Your task to perform on an android device: Clear the shopping cart on ebay.com. Search for acer predator on ebay.com, select the first entry, add it to the cart, then select checkout. Image 0: 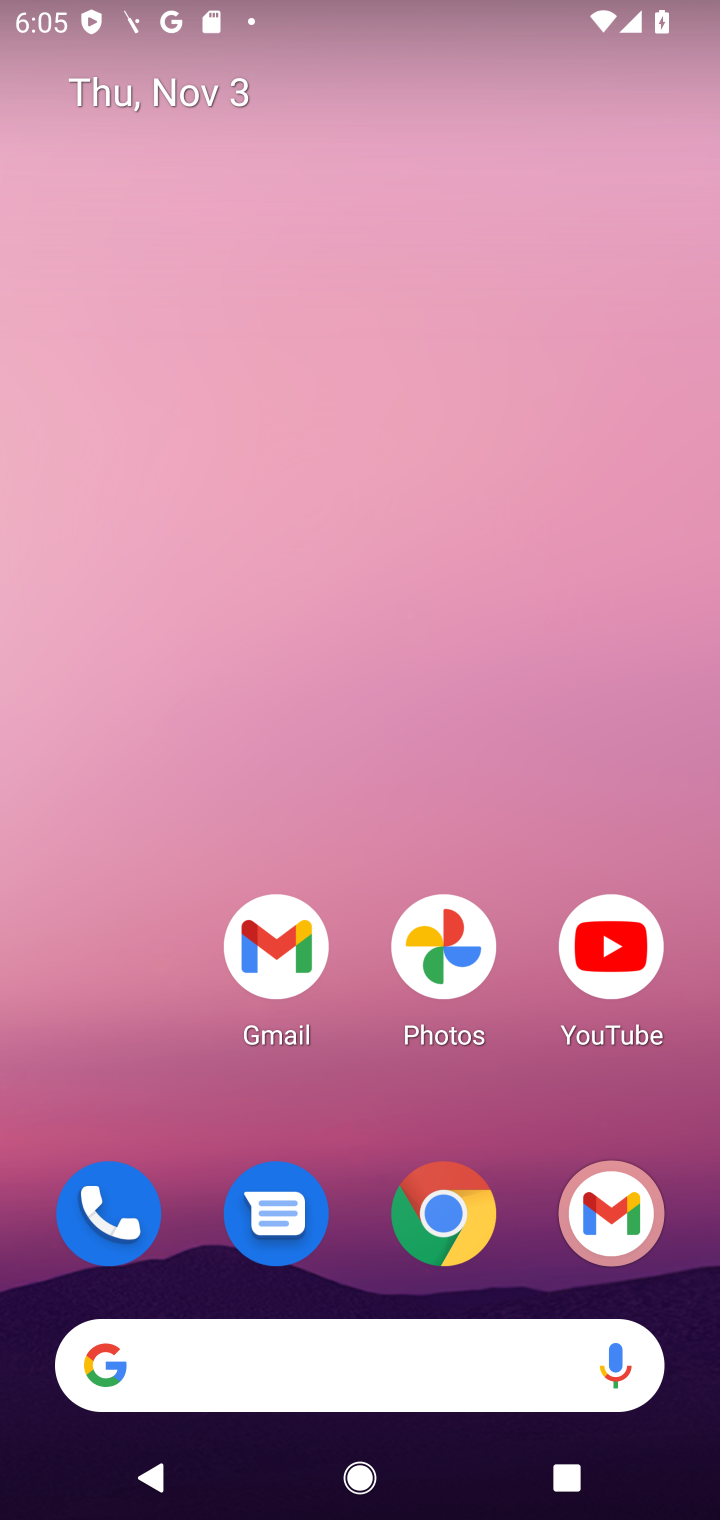
Step 0: click (444, 1226)
Your task to perform on an android device: Clear the shopping cart on ebay.com. Search for acer predator on ebay.com, select the first entry, add it to the cart, then select checkout. Image 1: 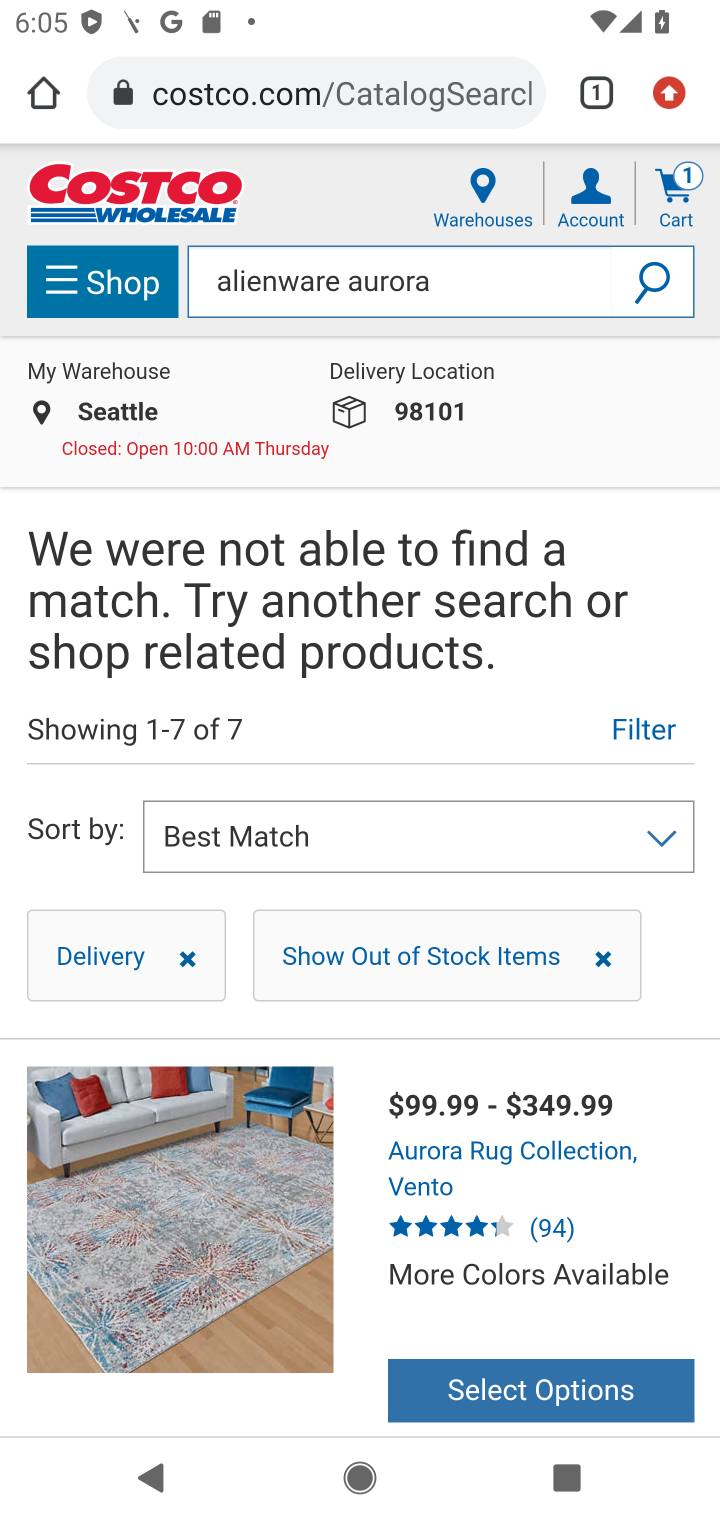
Step 1: click (278, 110)
Your task to perform on an android device: Clear the shopping cart on ebay.com. Search for acer predator on ebay.com, select the first entry, add it to the cart, then select checkout. Image 2: 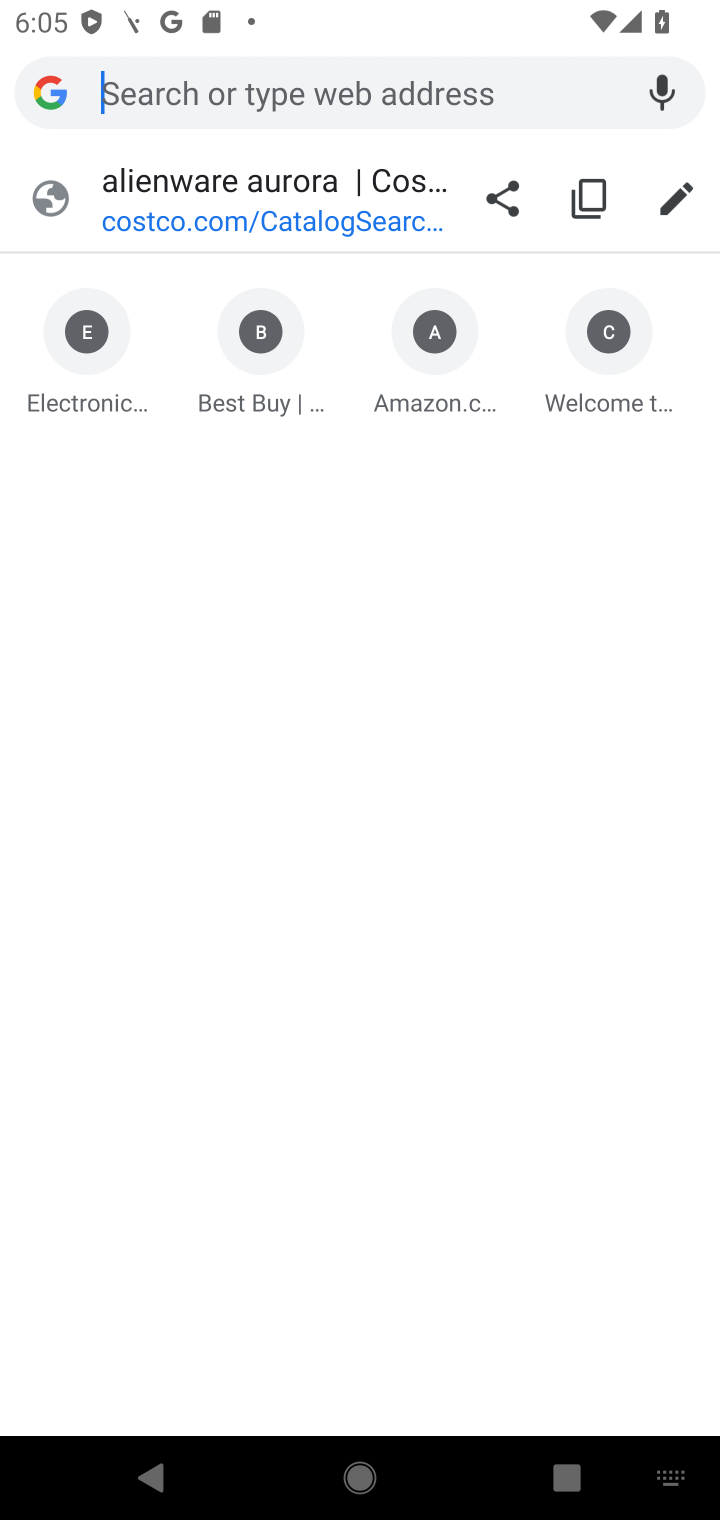
Step 2: type "ebay.com"
Your task to perform on an android device: Clear the shopping cart on ebay.com. Search for acer predator on ebay.com, select the first entry, add it to the cart, then select checkout. Image 3: 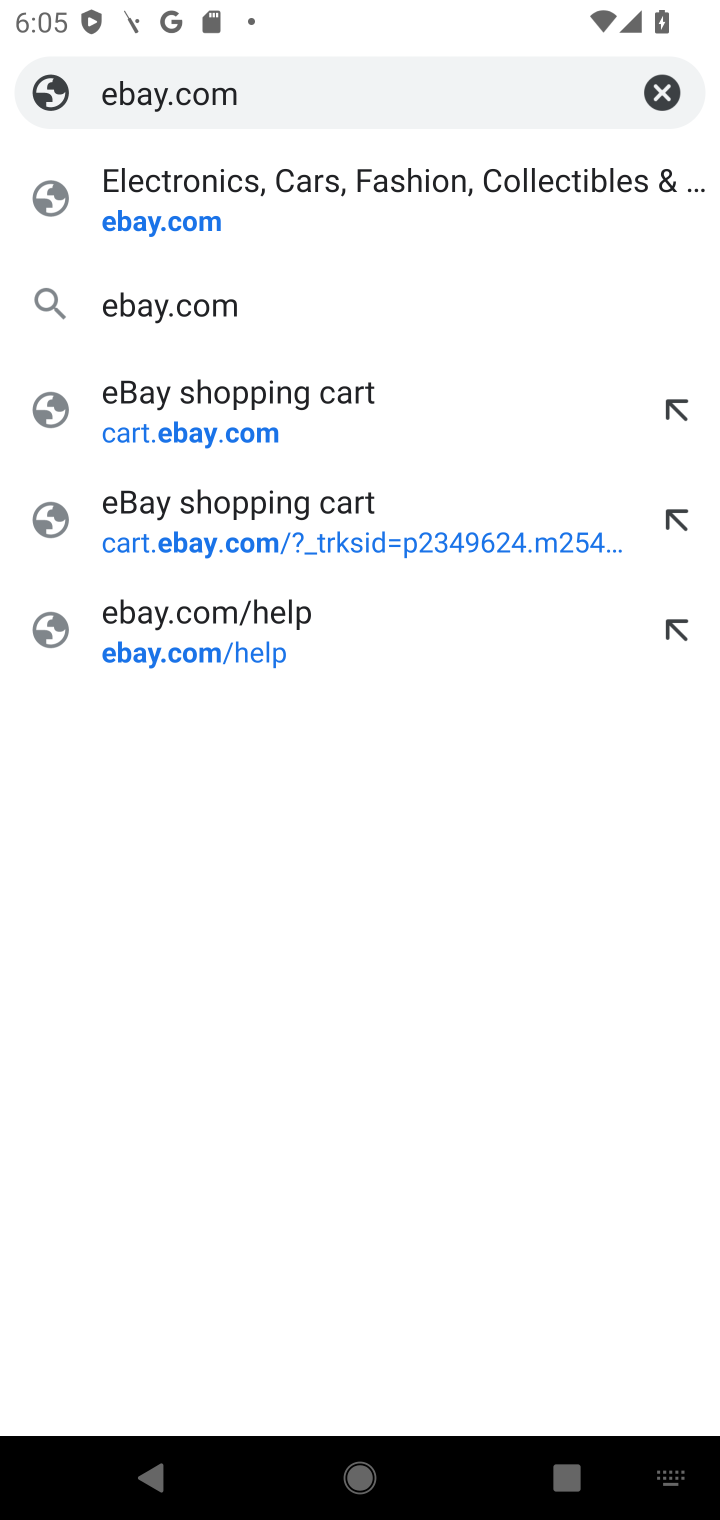
Step 3: click (129, 217)
Your task to perform on an android device: Clear the shopping cart on ebay.com. Search for acer predator on ebay.com, select the first entry, add it to the cart, then select checkout. Image 4: 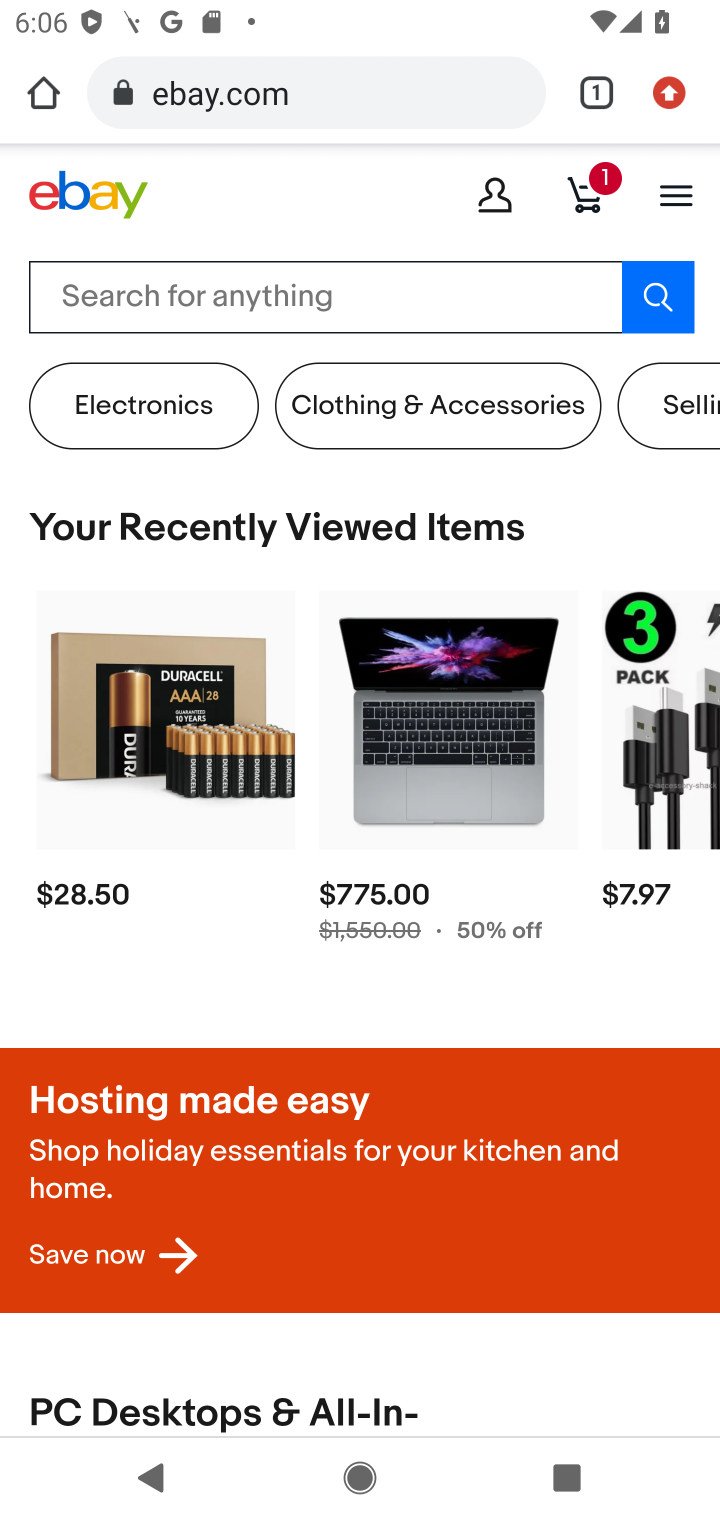
Step 4: click (598, 181)
Your task to perform on an android device: Clear the shopping cart on ebay.com. Search for acer predator on ebay.com, select the first entry, add it to the cart, then select checkout. Image 5: 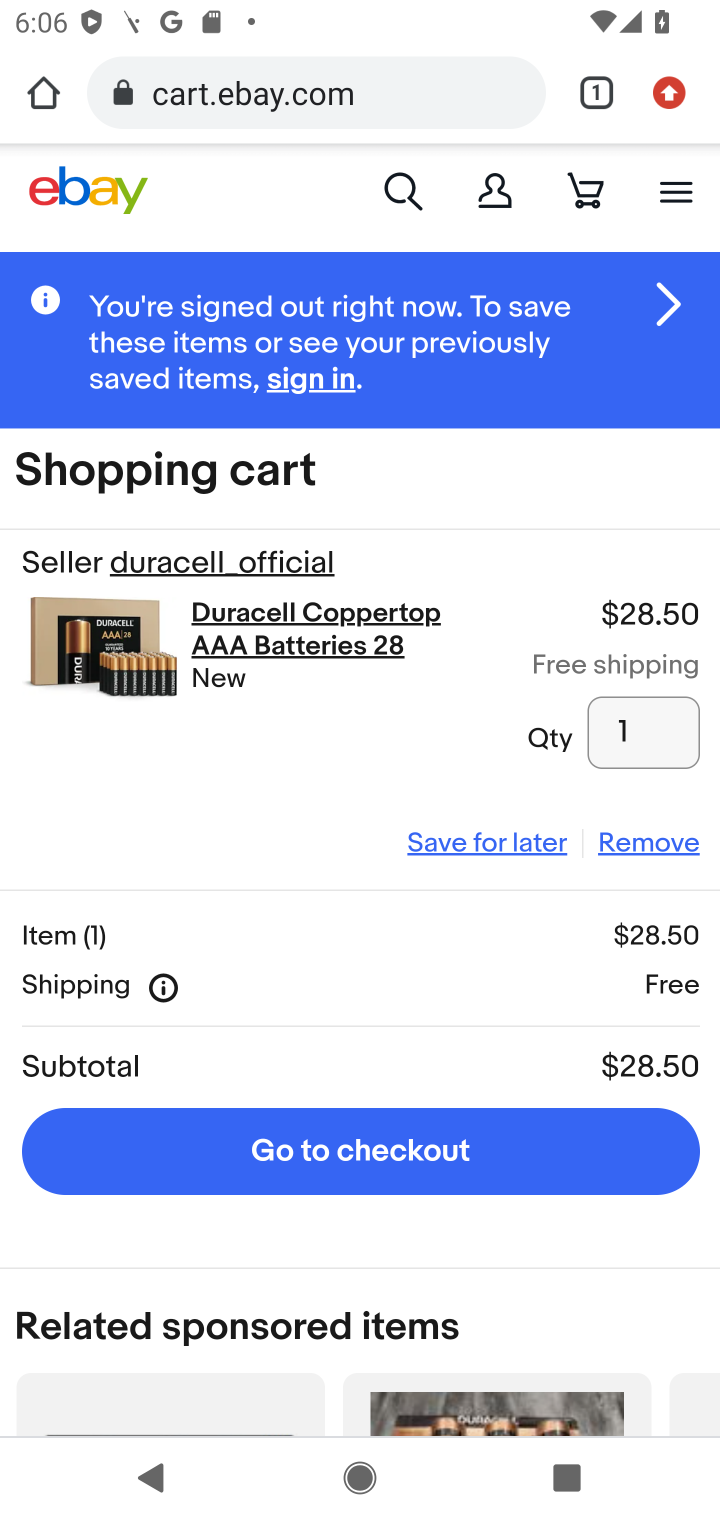
Step 5: click (658, 850)
Your task to perform on an android device: Clear the shopping cart on ebay.com. Search for acer predator on ebay.com, select the first entry, add it to the cart, then select checkout. Image 6: 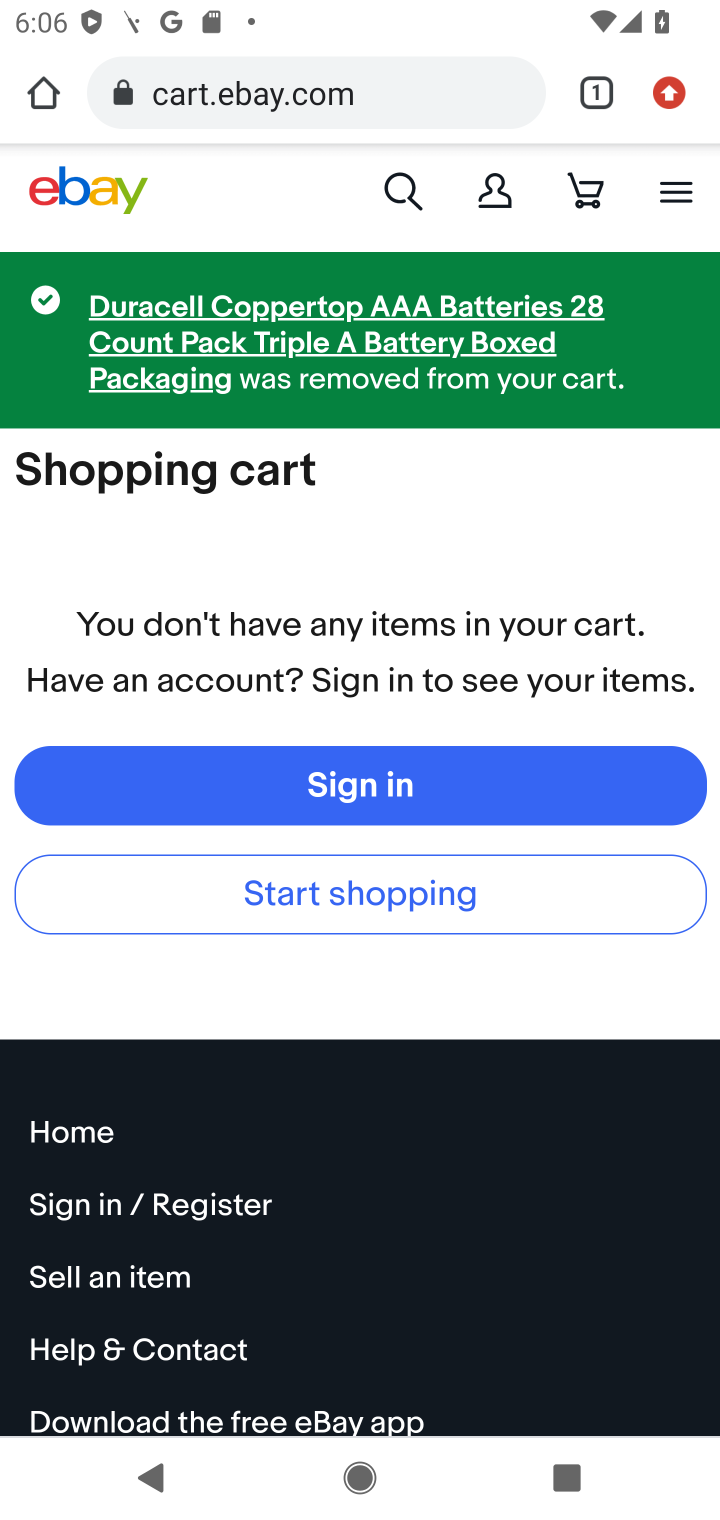
Step 6: click (399, 186)
Your task to perform on an android device: Clear the shopping cart on ebay.com. Search for acer predator on ebay.com, select the first entry, add it to the cart, then select checkout. Image 7: 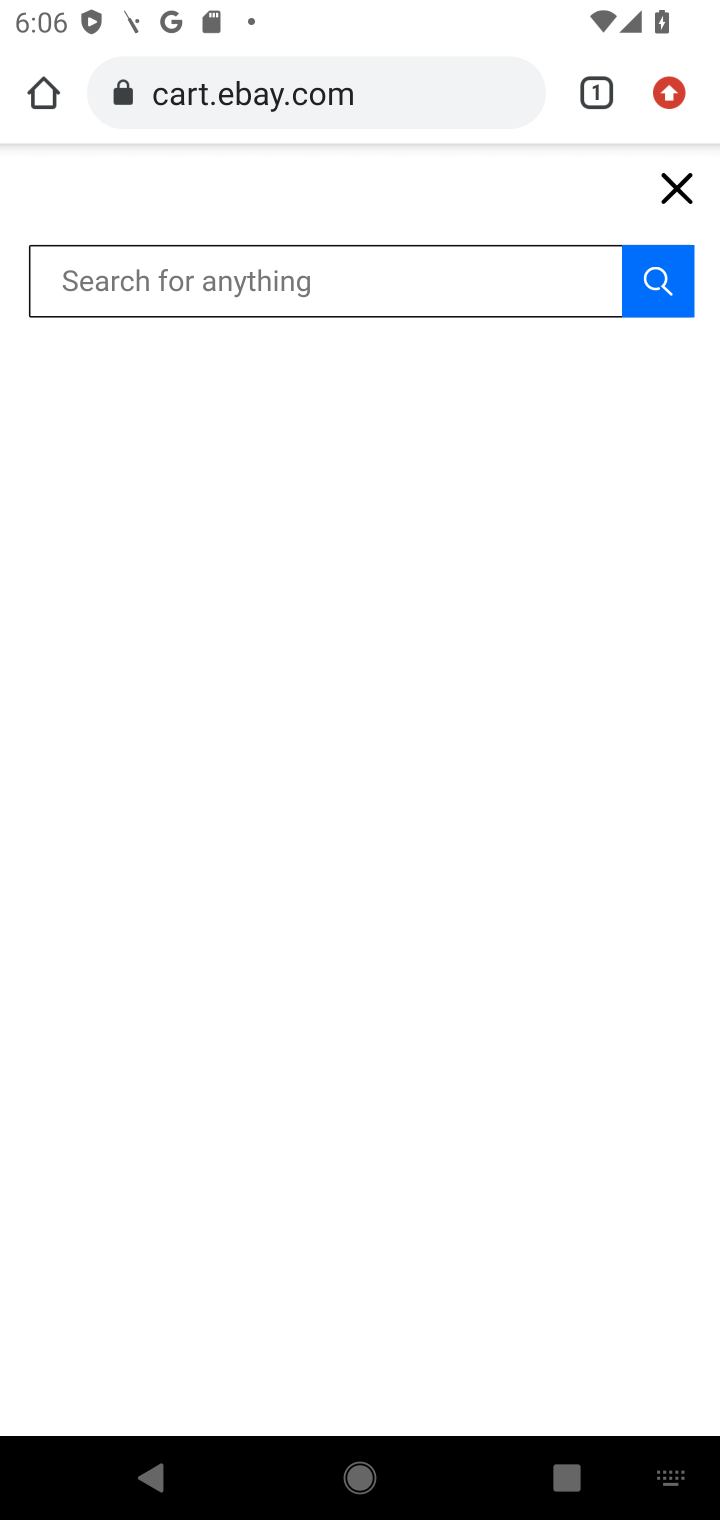
Step 7: type "acer predator"
Your task to perform on an android device: Clear the shopping cart on ebay.com. Search for acer predator on ebay.com, select the first entry, add it to the cart, then select checkout. Image 8: 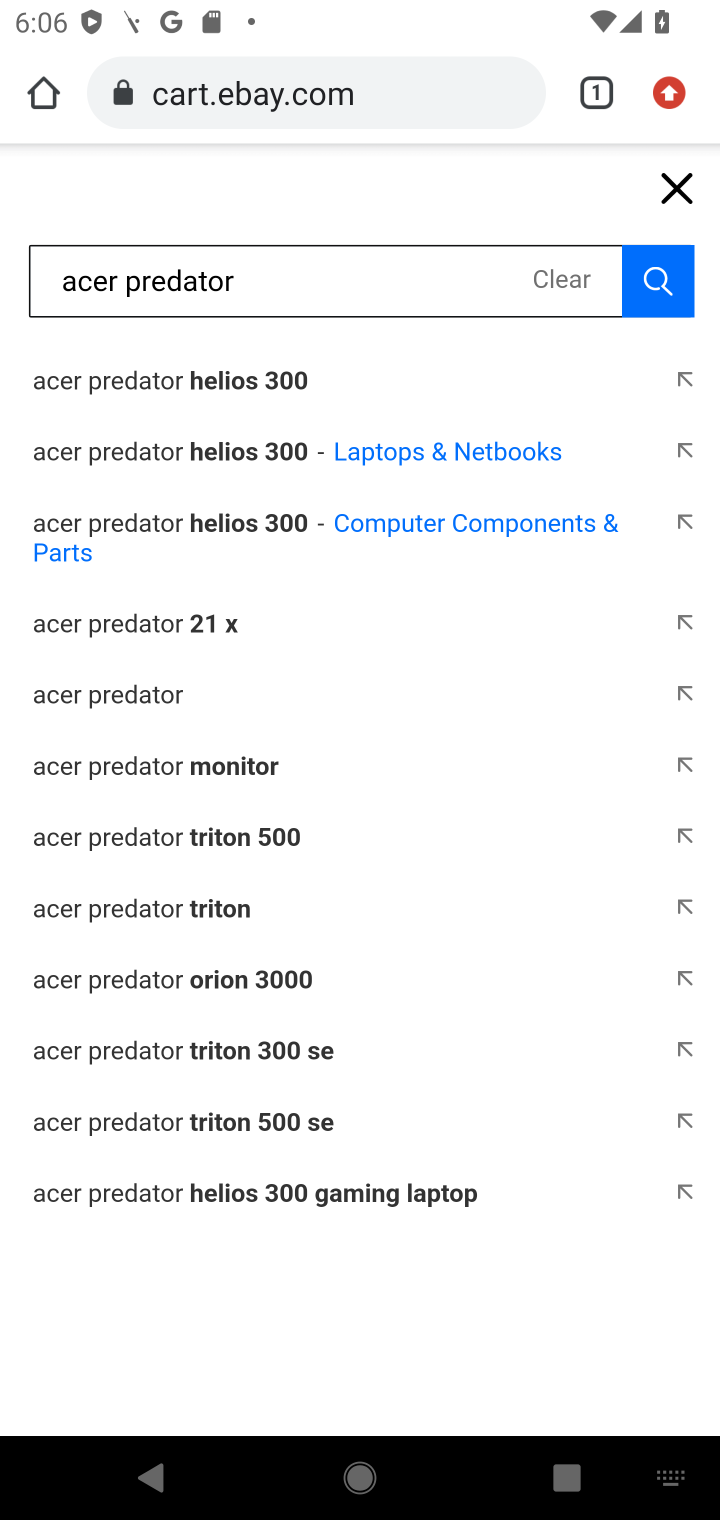
Step 8: click (144, 701)
Your task to perform on an android device: Clear the shopping cart on ebay.com. Search for acer predator on ebay.com, select the first entry, add it to the cart, then select checkout. Image 9: 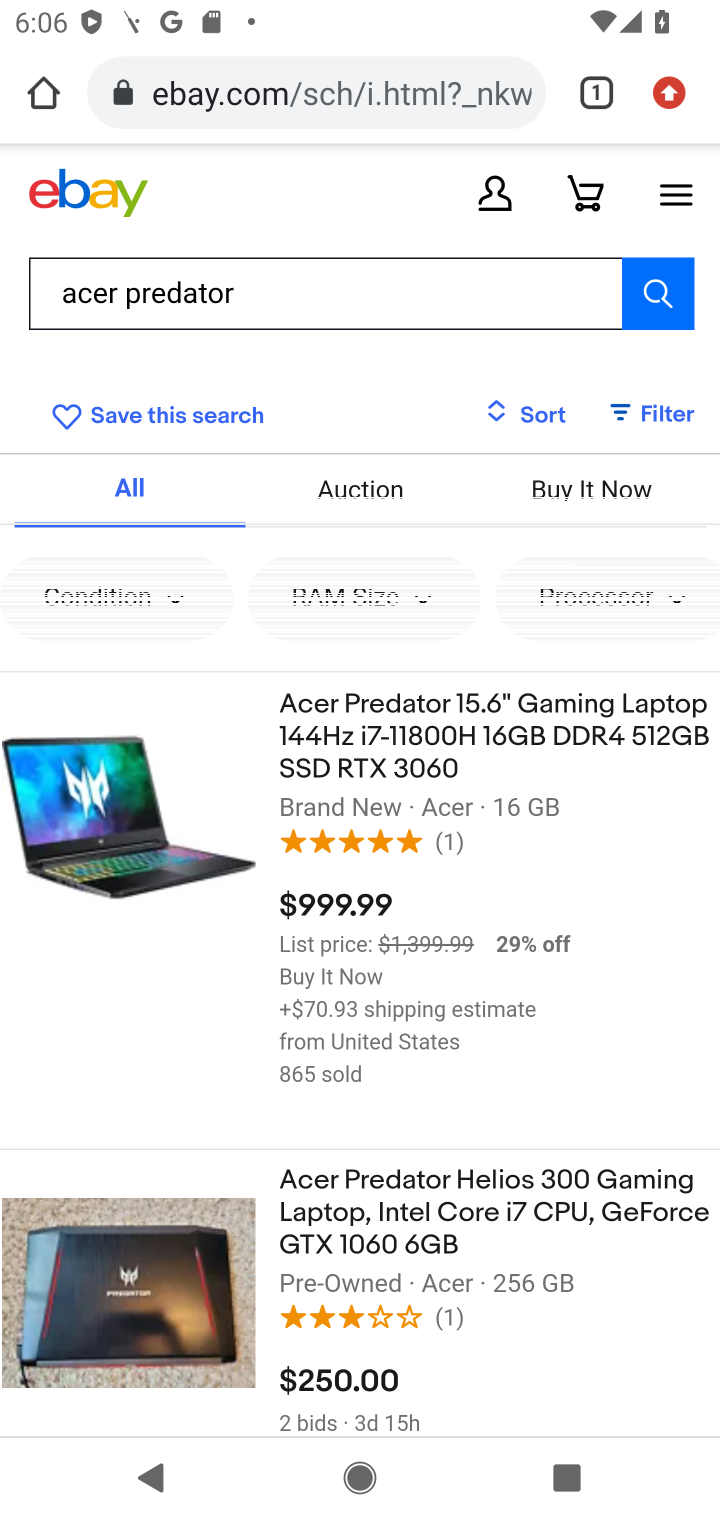
Step 9: click (183, 735)
Your task to perform on an android device: Clear the shopping cart on ebay.com. Search for acer predator on ebay.com, select the first entry, add it to the cart, then select checkout. Image 10: 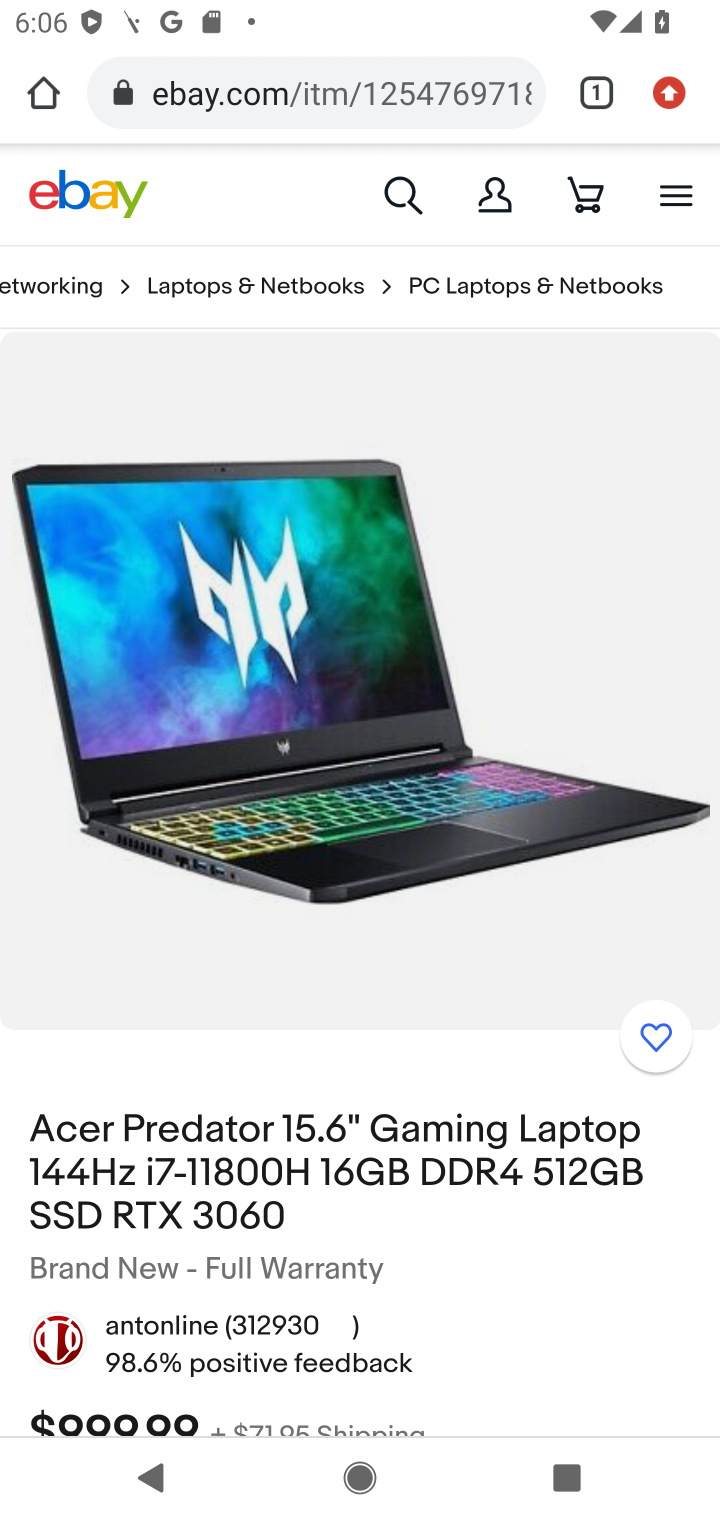
Step 10: drag from (387, 1070) to (377, 324)
Your task to perform on an android device: Clear the shopping cart on ebay.com. Search for acer predator on ebay.com, select the first entry, add it to the cart, then select checkout. Image 11: 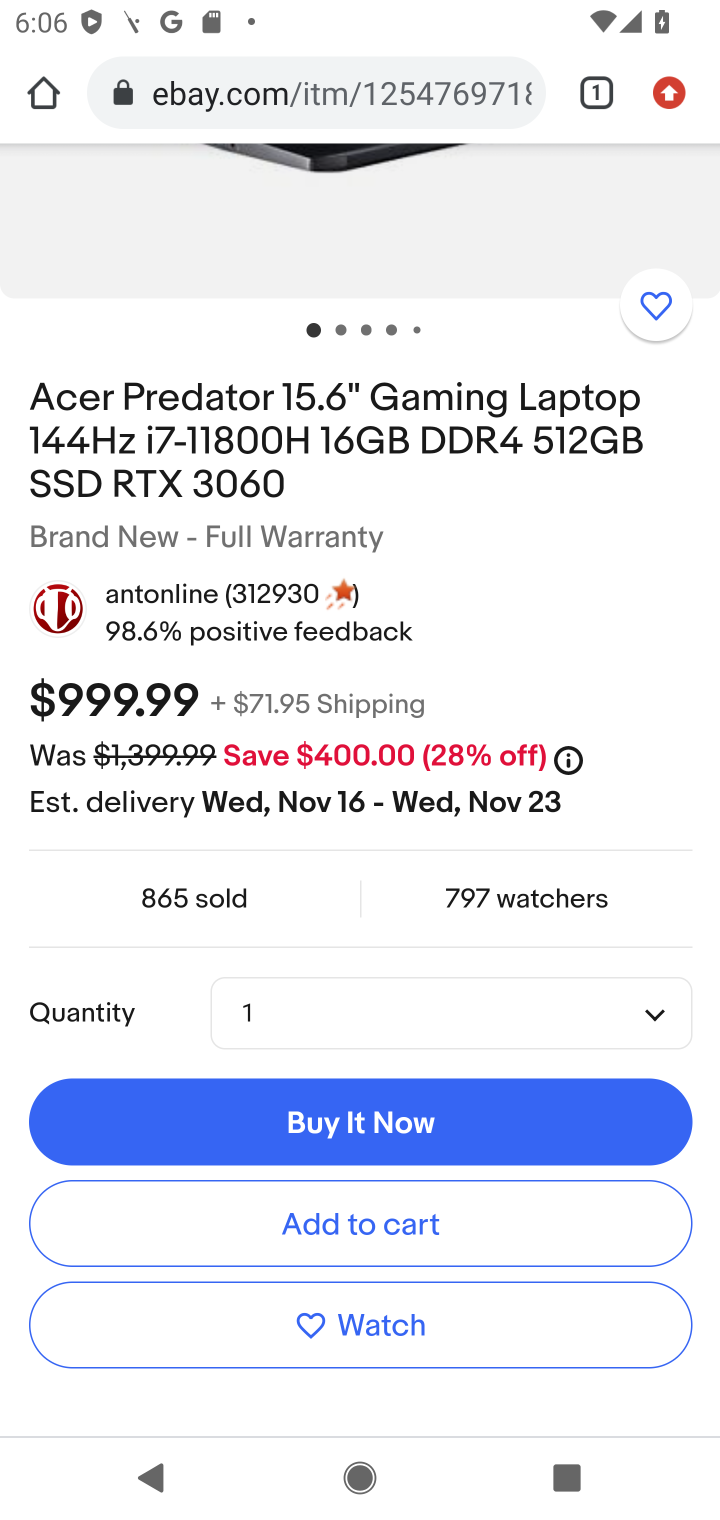
Step 11: click (347, 1221)
Your task to perform on an android device: Clear the shopping cart on ebay.com. Search for acer predator on ebay.com, select the first entry, add it to the cart, then select checkout. Image 12: 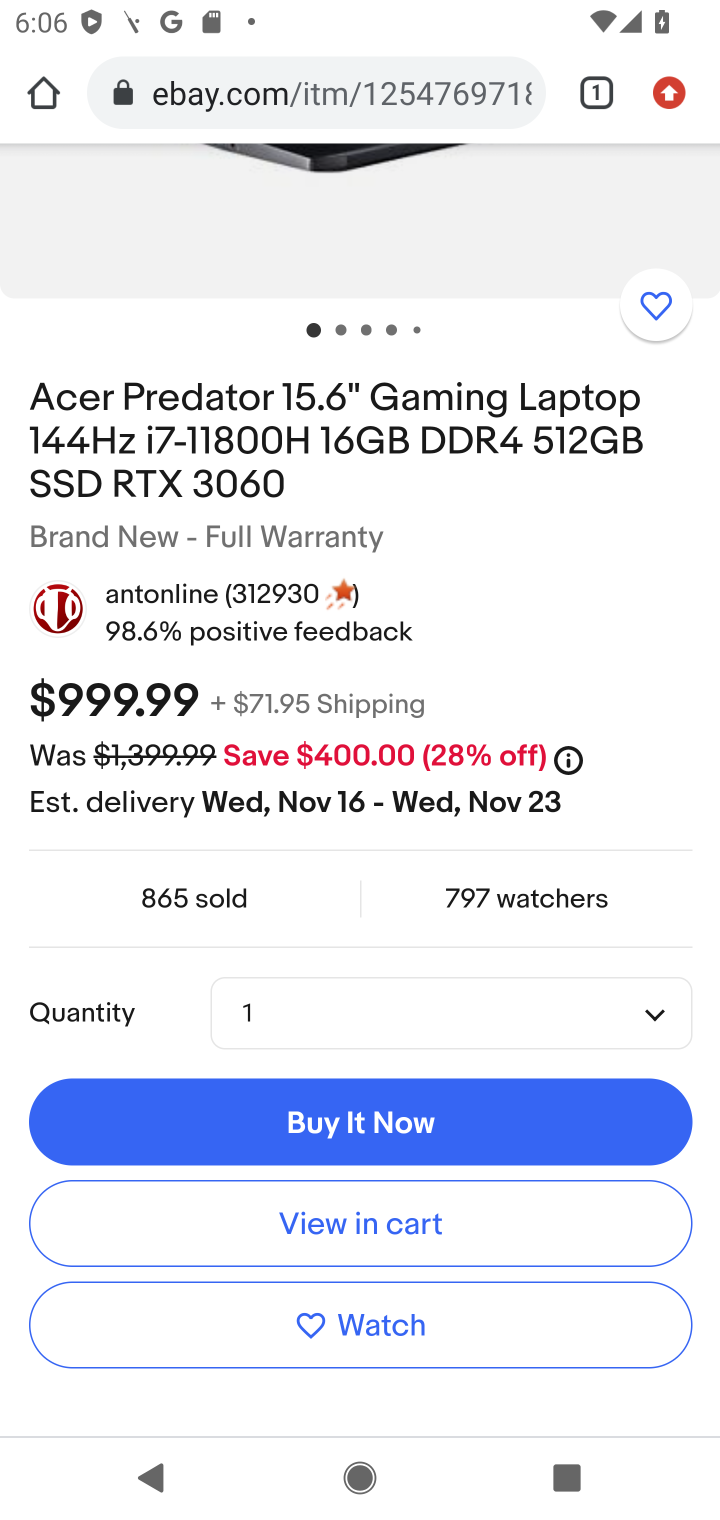
Step 12: click (335, 1235)
Your task to perform on an android device: Clear the shopping cart on ebay.com. Search for acer predator on ebay.com, select the first entry, add it to the cart, then select checkout. Image 13: 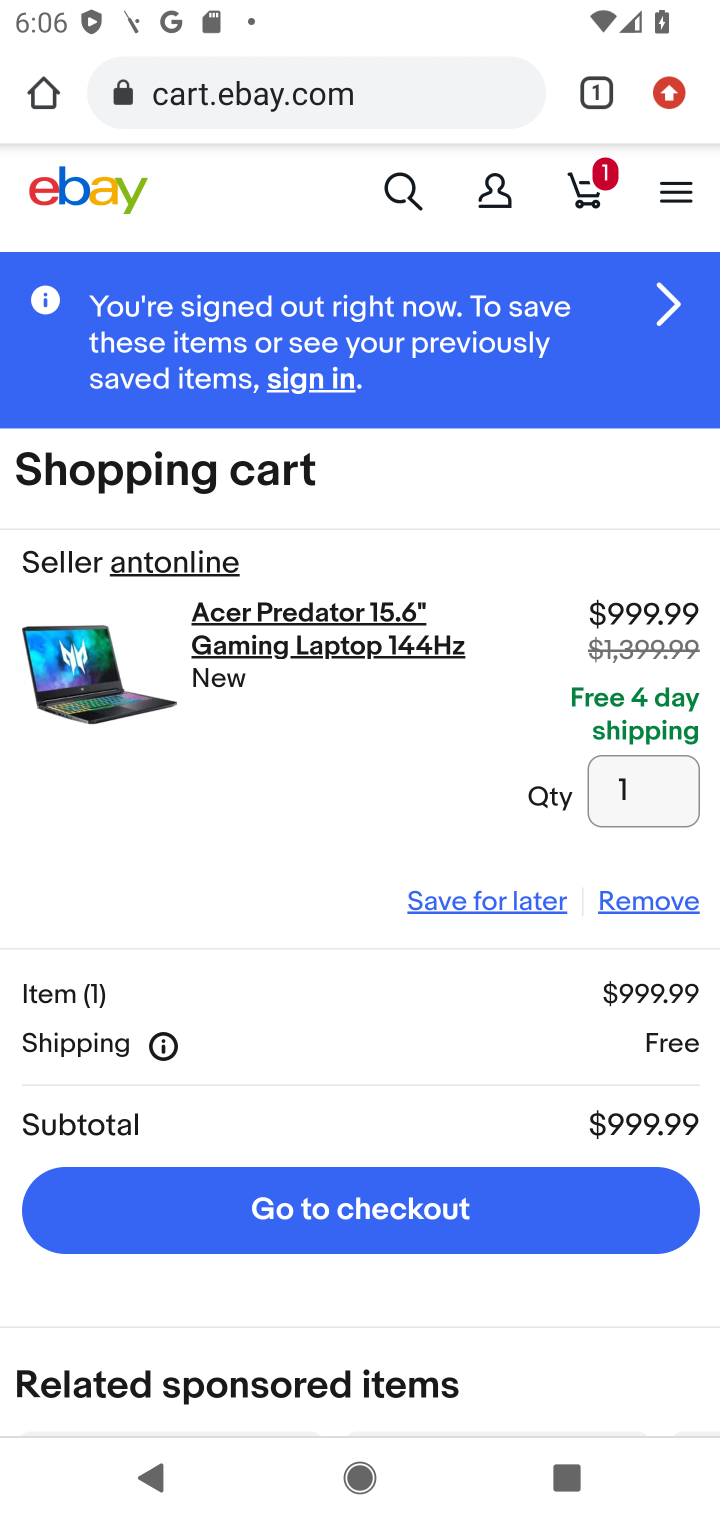
Step 13: click (344, 1230)
Your task to perform on an android device: Clear the shopping cart on ebay.com. Search for acer predator on ebay.com, select the first entry, add it to the cart, then select checkout. Image 14: 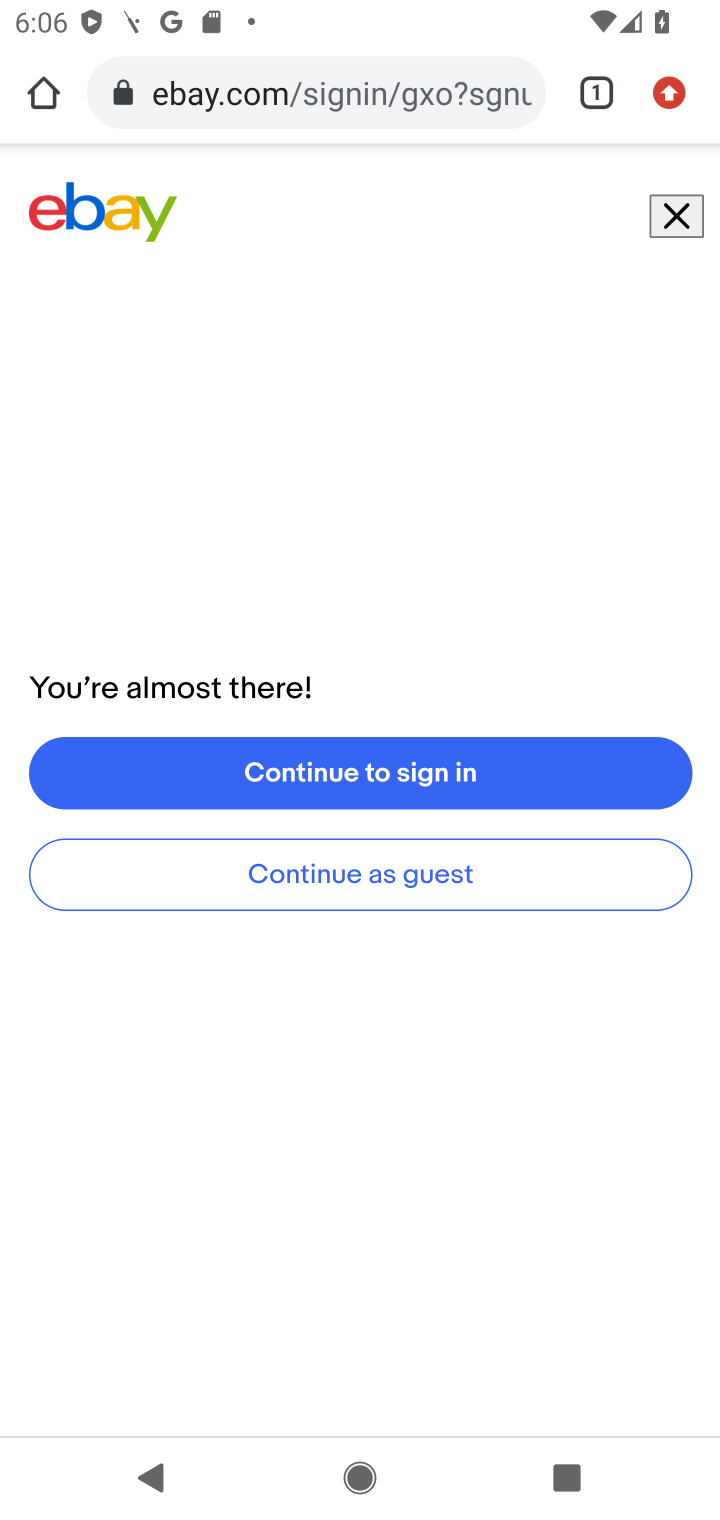
Step 14: task complete